Your task to perform on an android device: Open Wikipedia Image 0: 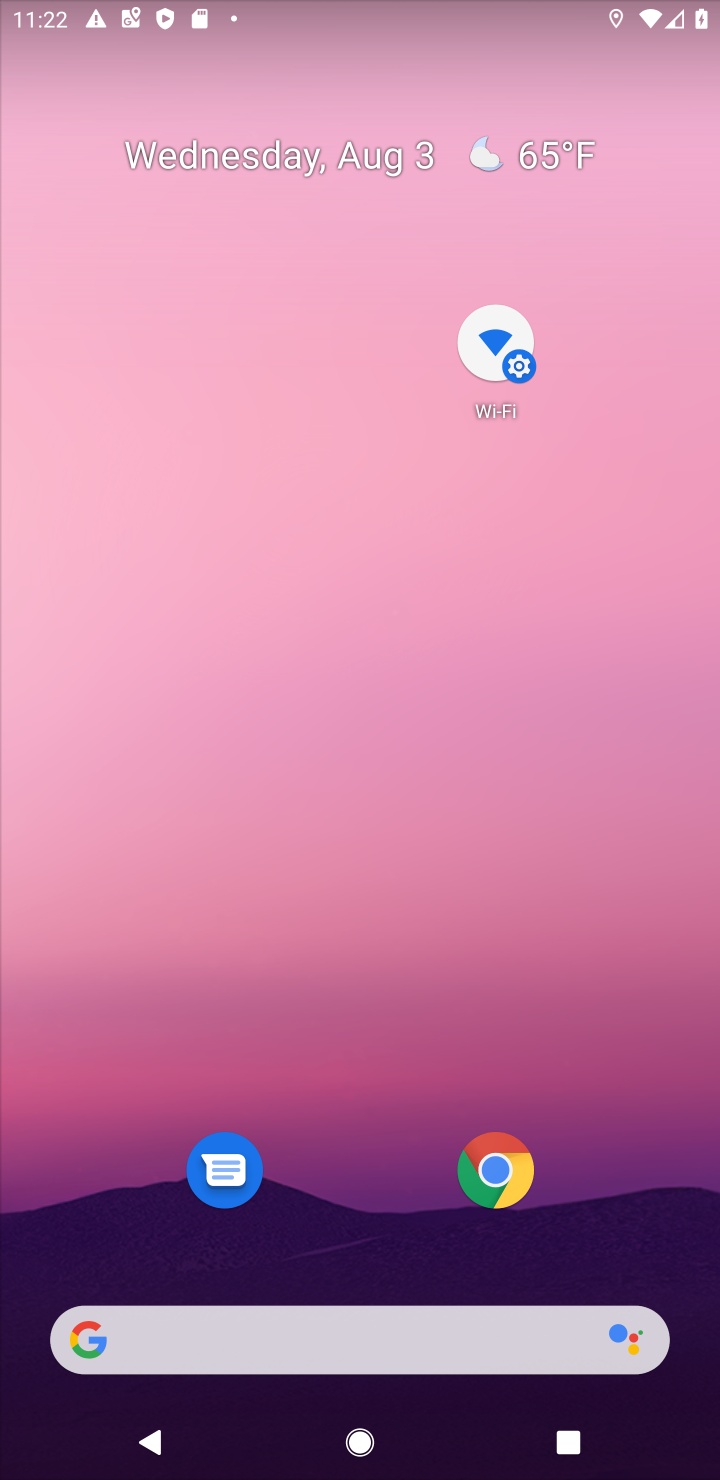
Step 0: drag from (333, 1257) to (333, 282)
Your task to perform on an android device: Open Wikipedia Image 1: 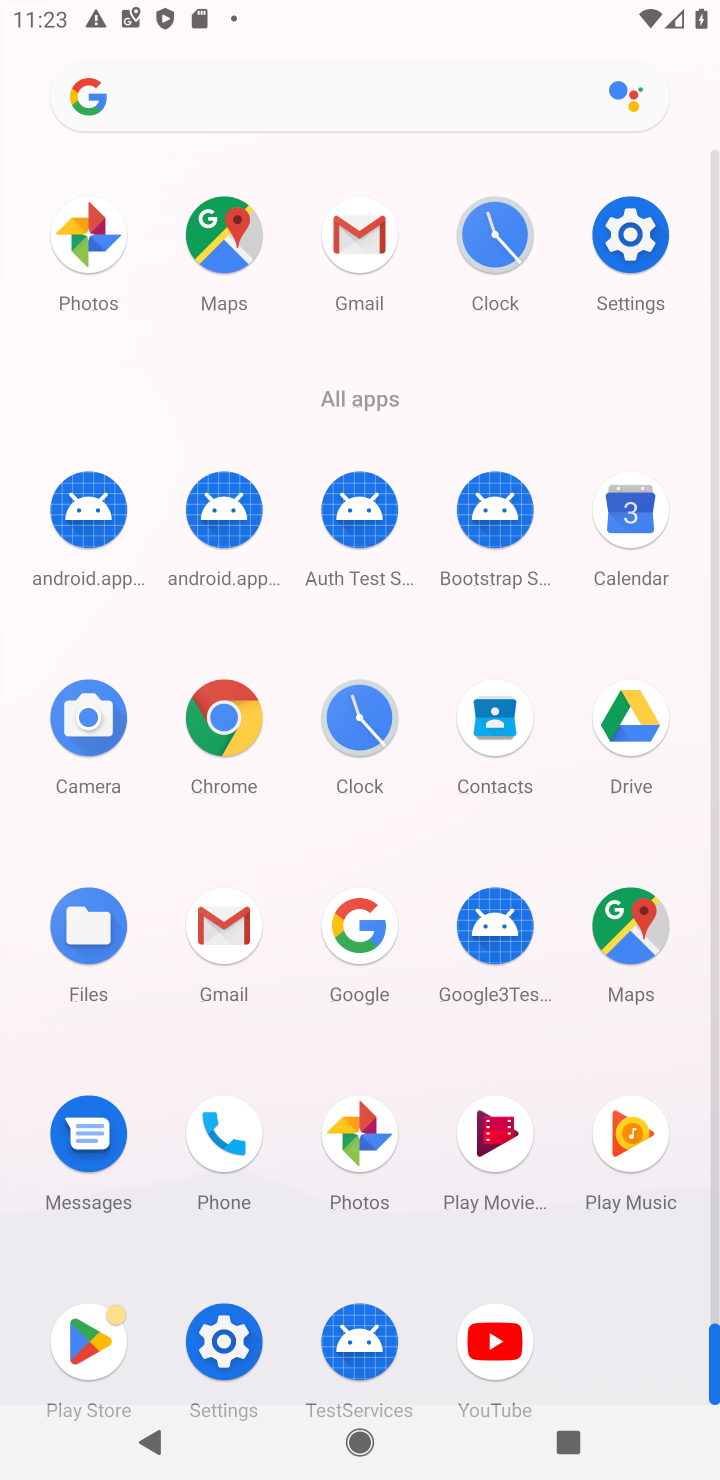
Step 1: click (278, 114)
Your task to perform on an android device: Open Wikipedia Image 2: 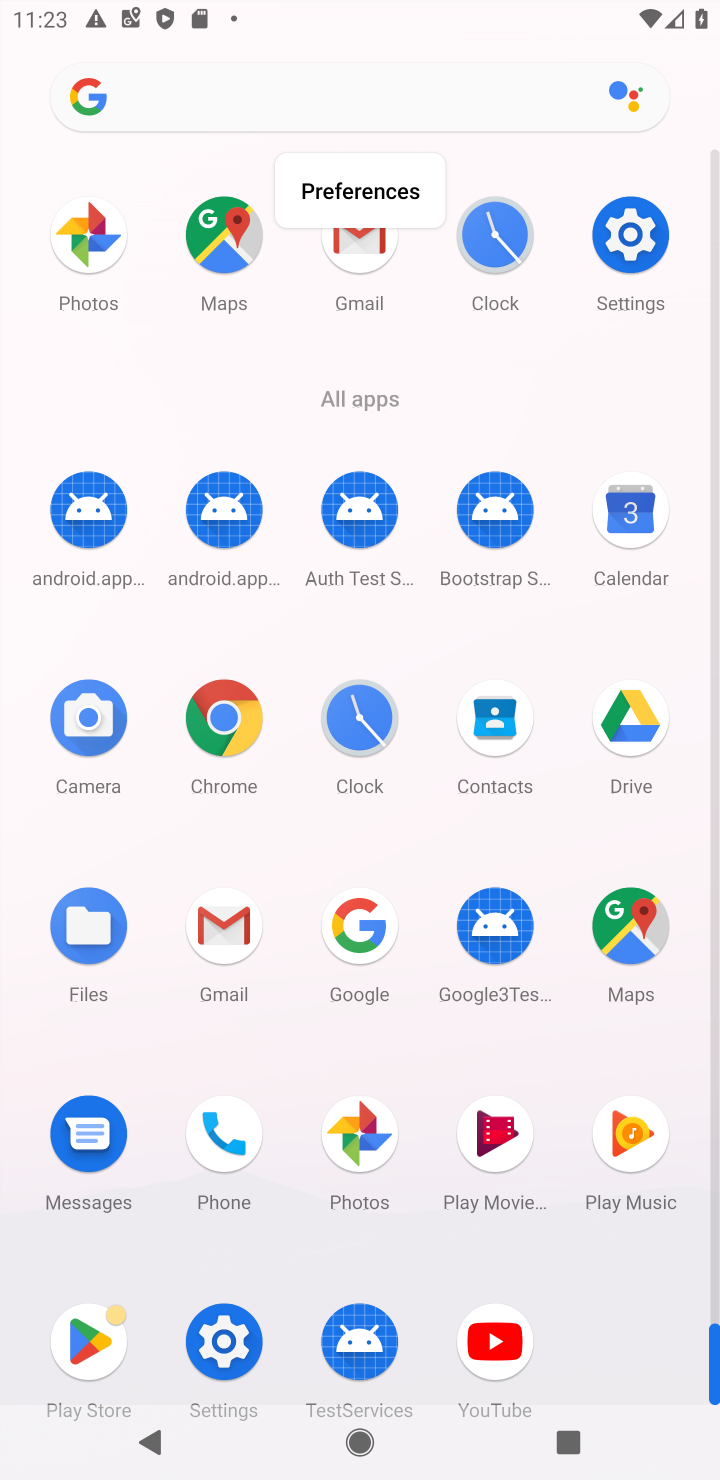
Step 2: click (237, 103)
Your task to perform on an android device: Open Wikipedia Image 3: 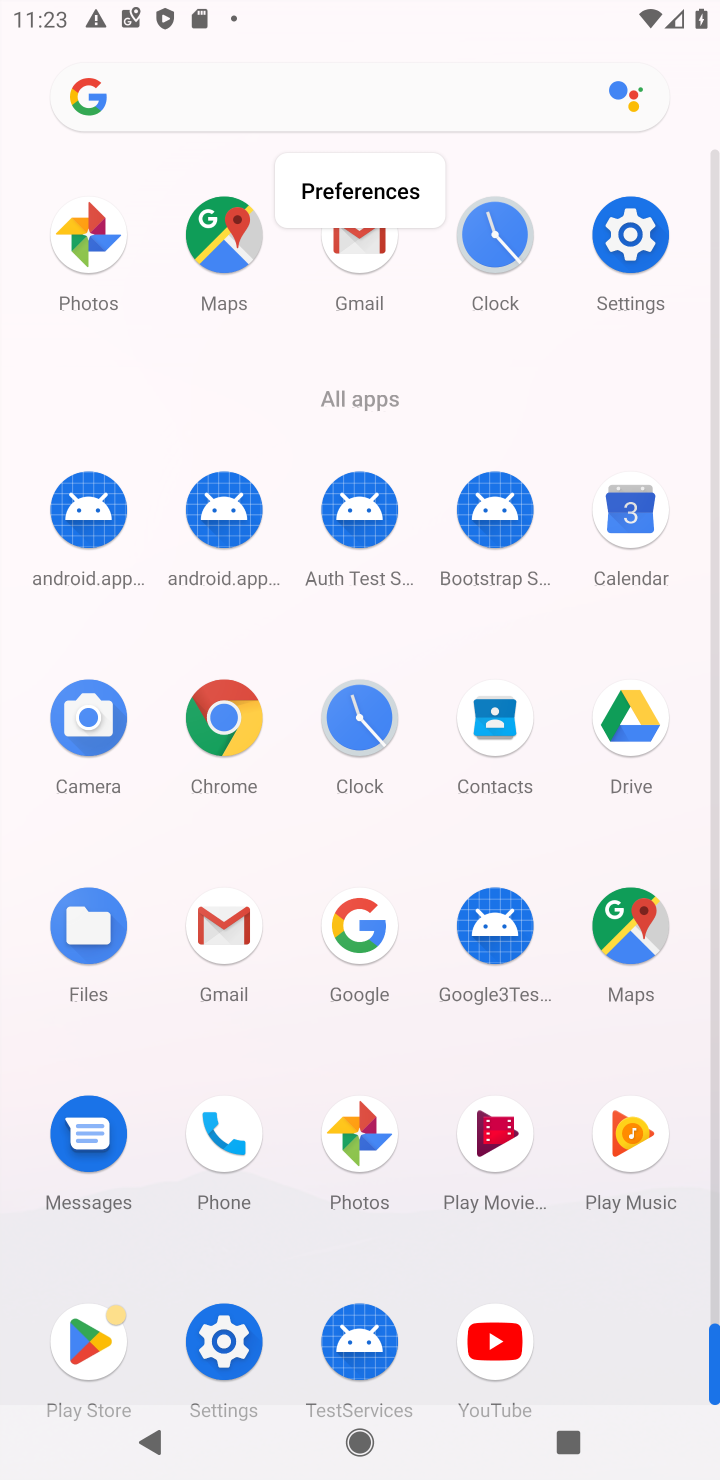
Step 3: click (311, 94)
Your task to perform on an android device: Open Wikipedia Image 4: 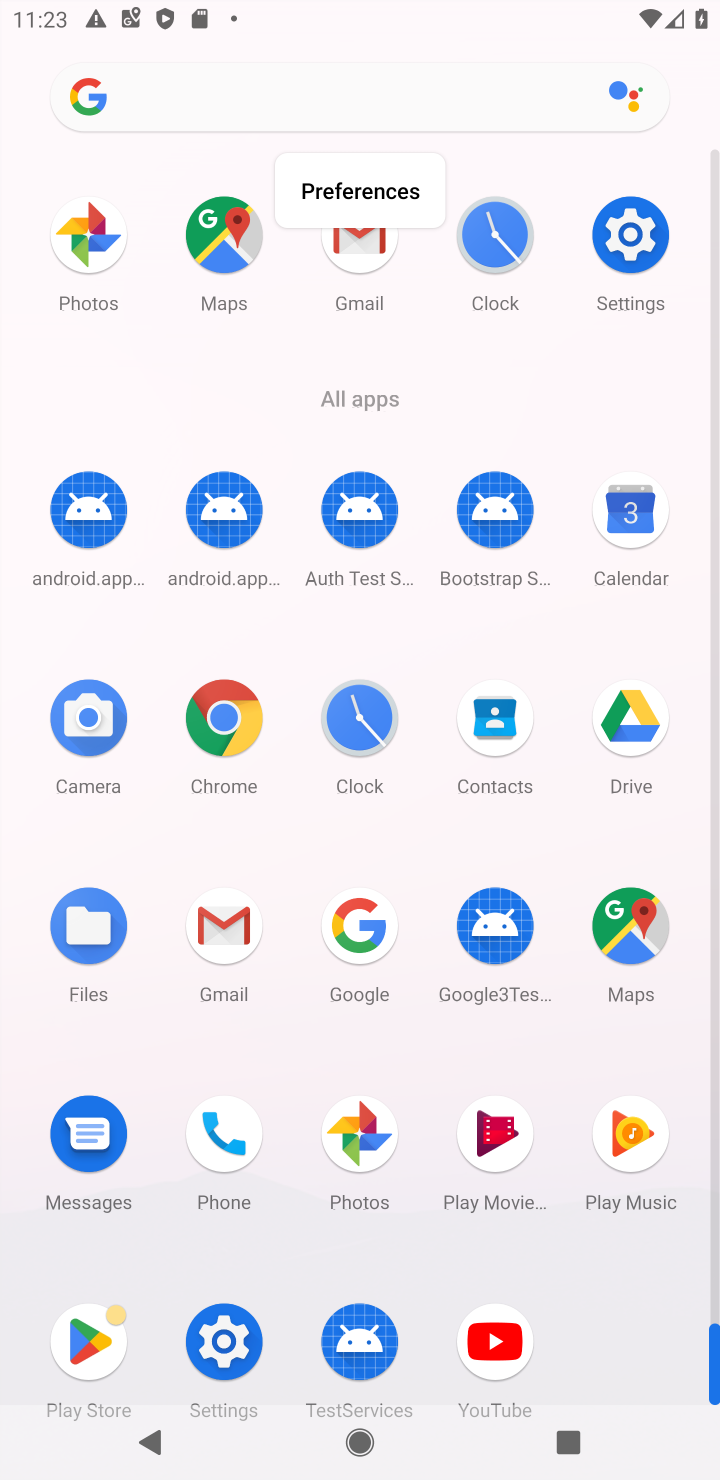
Step 4: click (196, 709)
Your task to perform on an android device: Open Wikipedia Image 5: 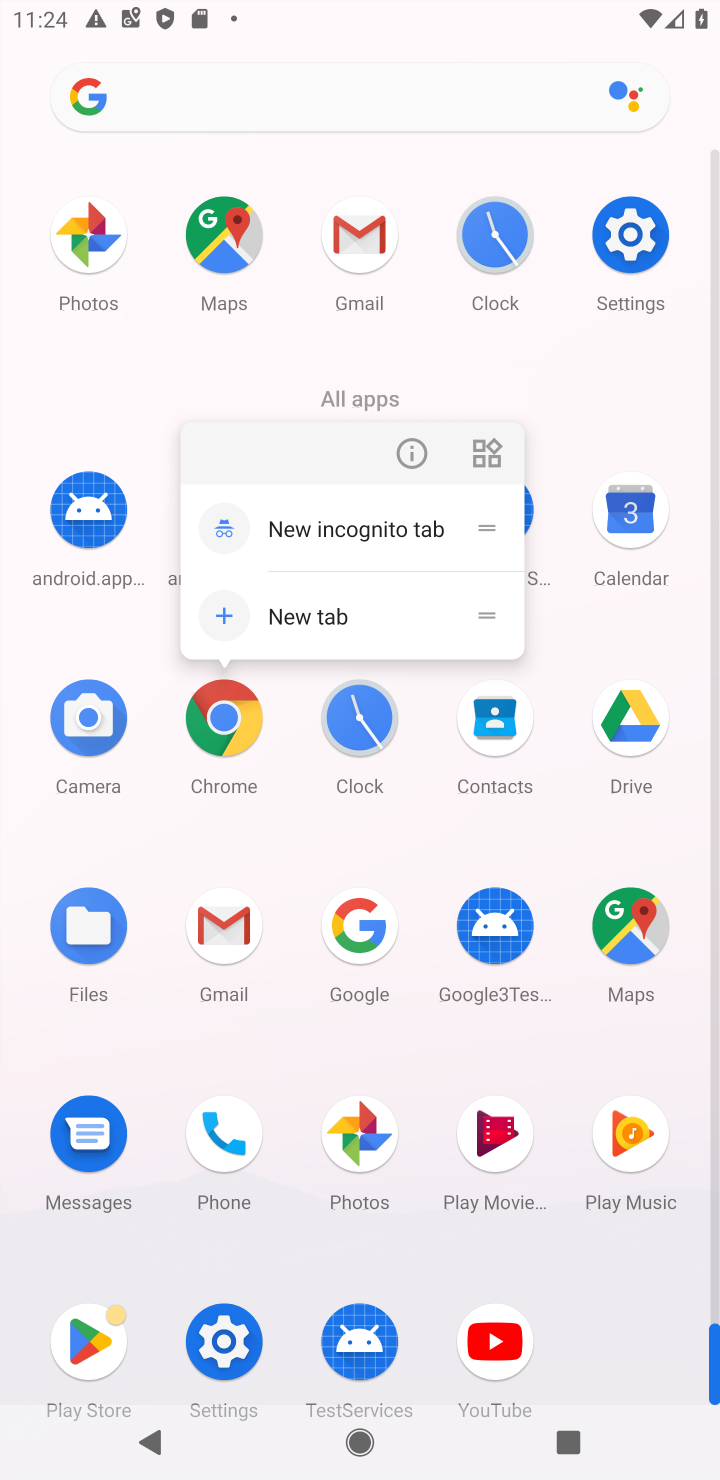
Step 5: click (428, 456)
Your task to perform on an android device: Open Wikipedia Image 6: 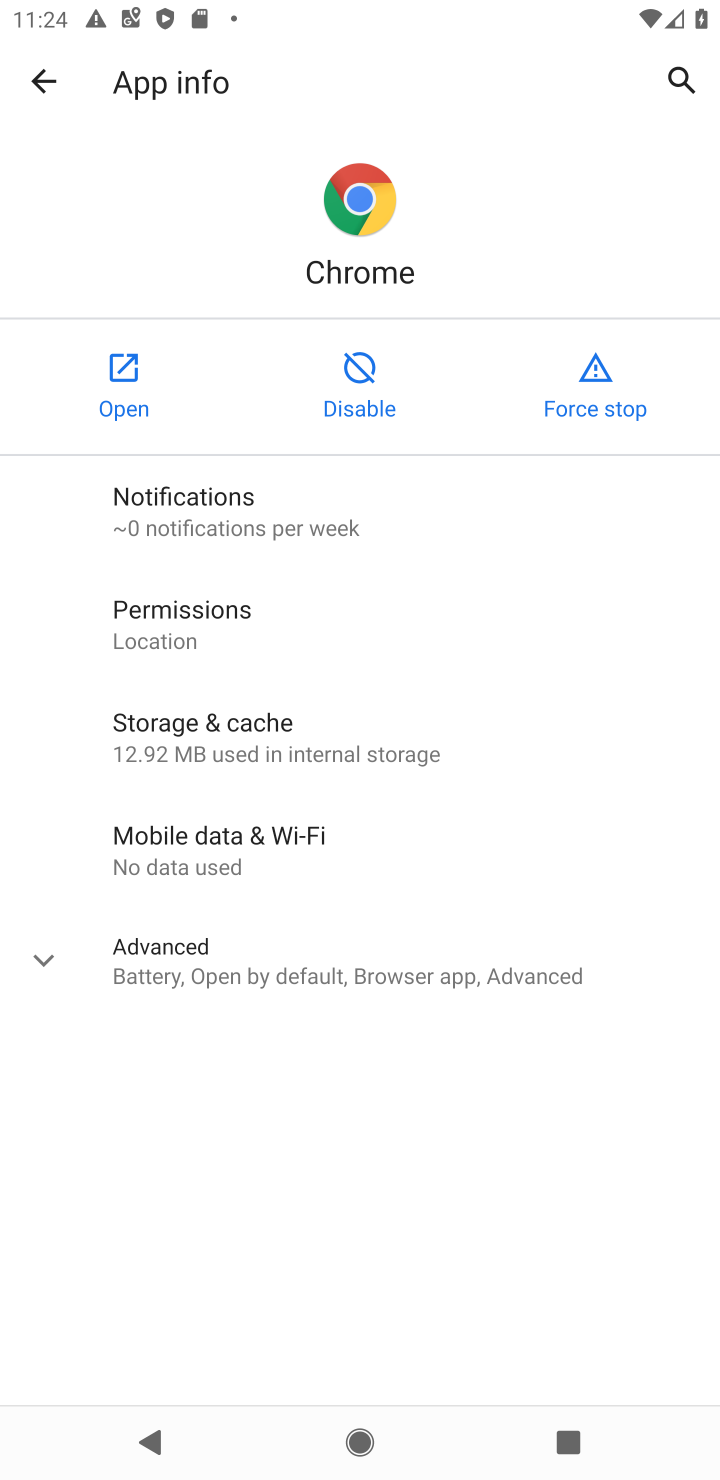
Step 6: click (112, 383)
Your task to perform on an android device: Open Wikipedia Image 7: 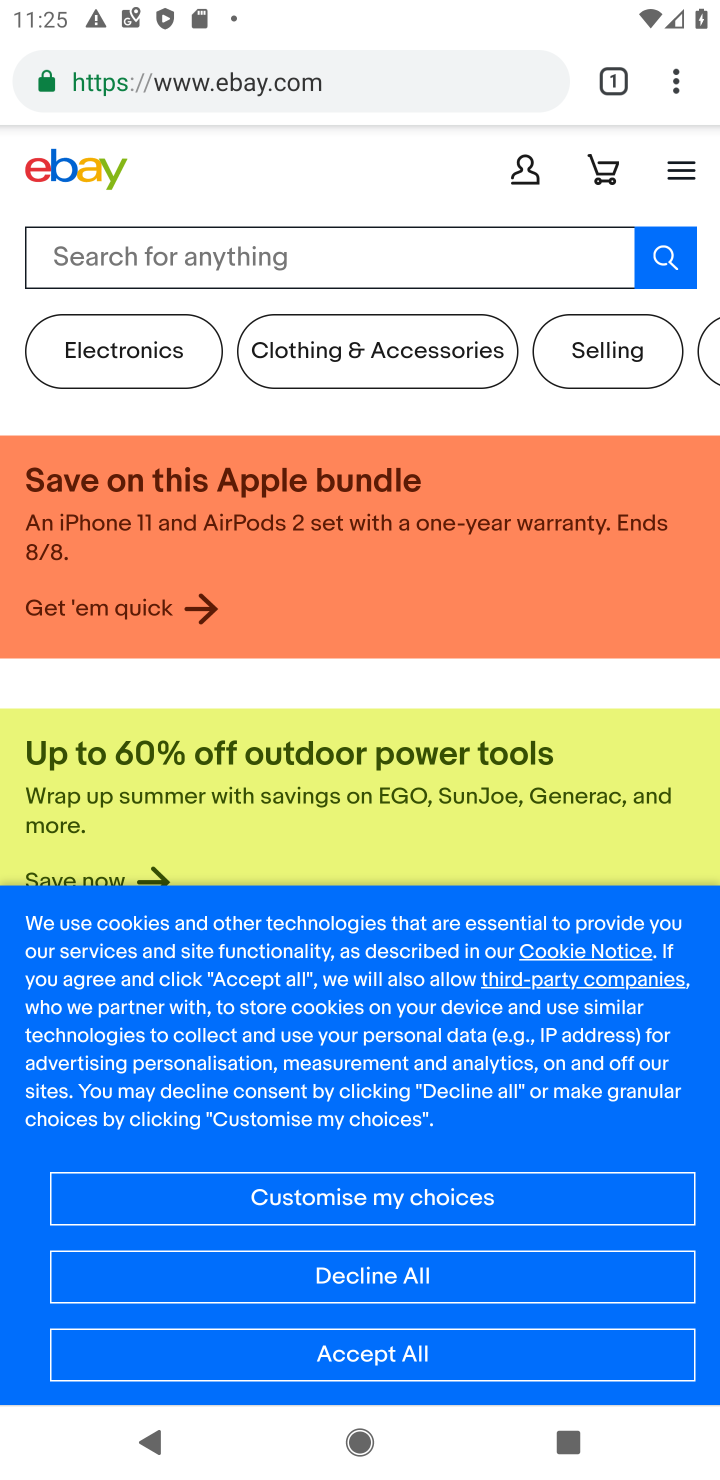
Step 7: click (227, 109)
Your task to perform on an android device: Open Wikipedia Image 8: 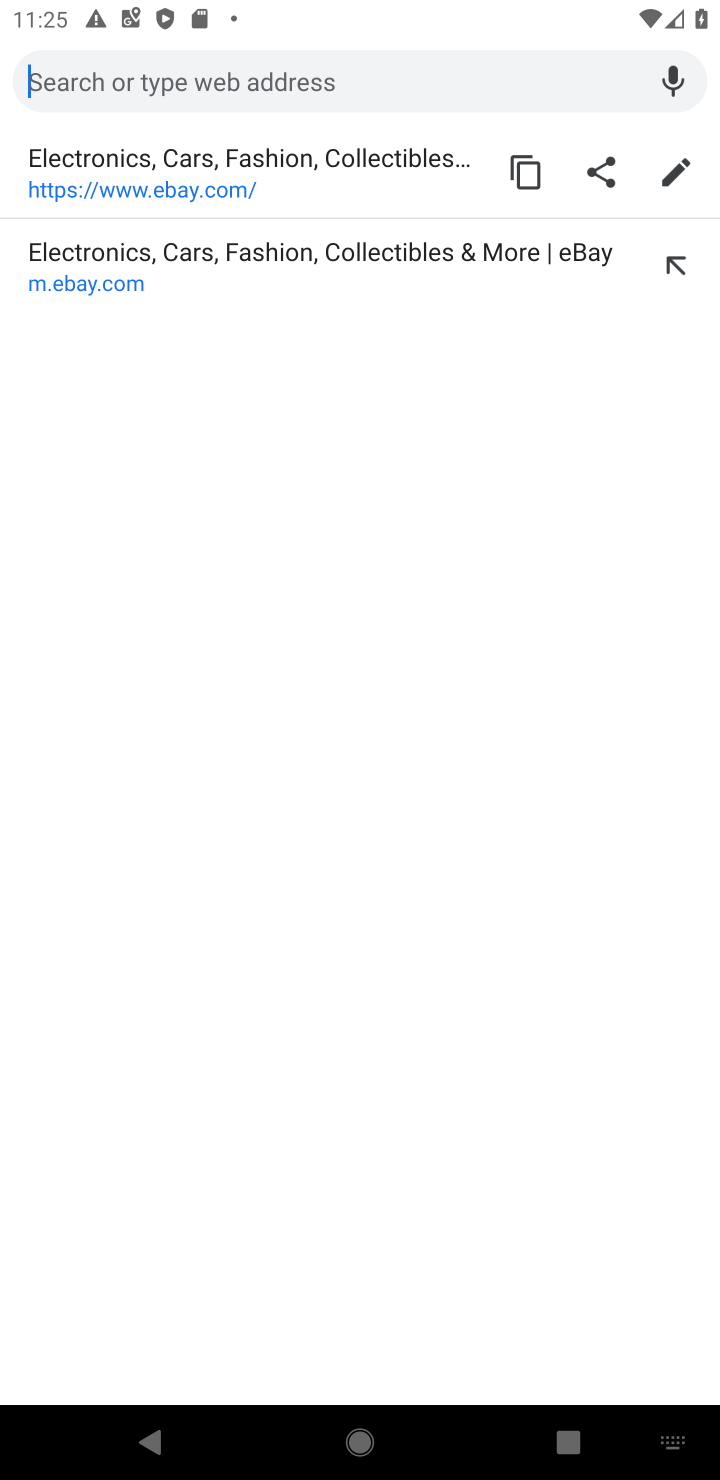
Step 8: type ""
Your task to perform on an android device: Open Wikipedia Image 9: 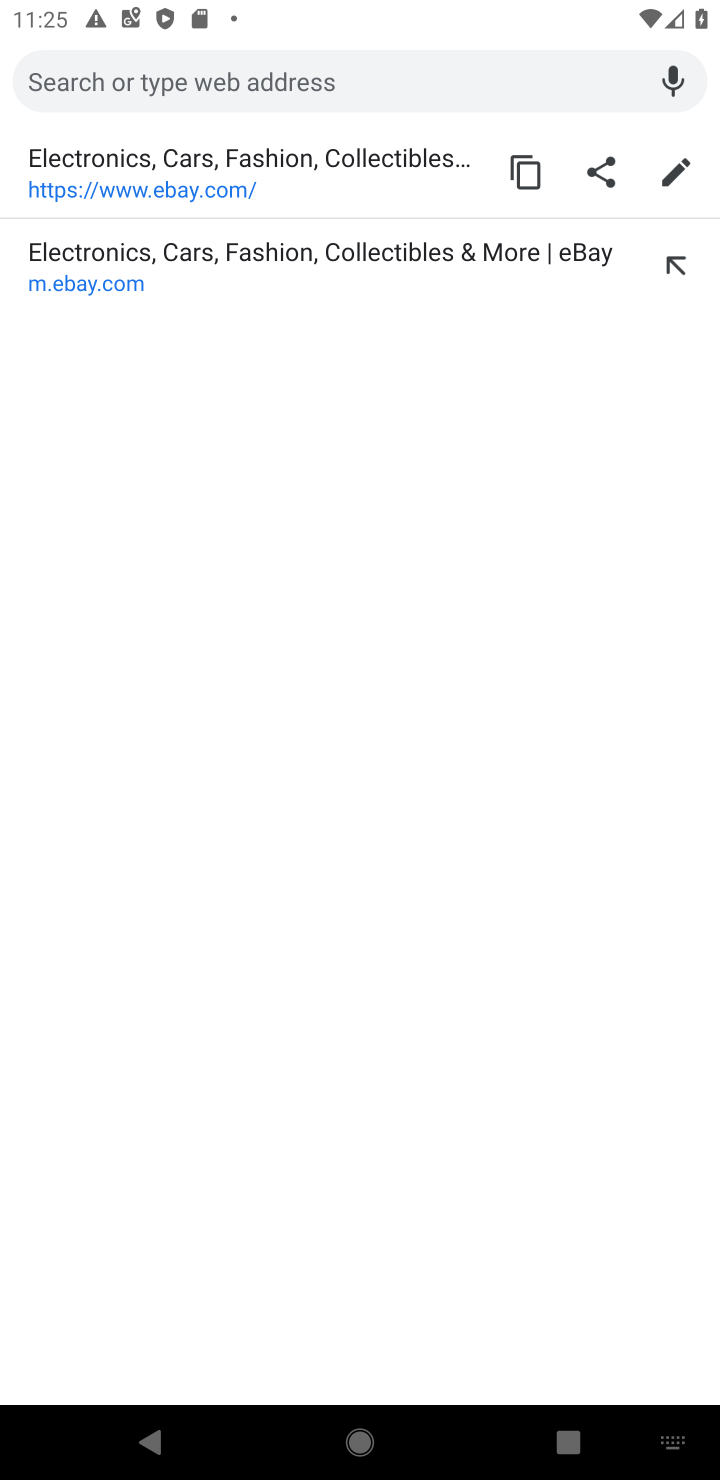
Step 9: type "Wikipedia"
Your task to perform on an android device: Open Wikipedia Image 10: 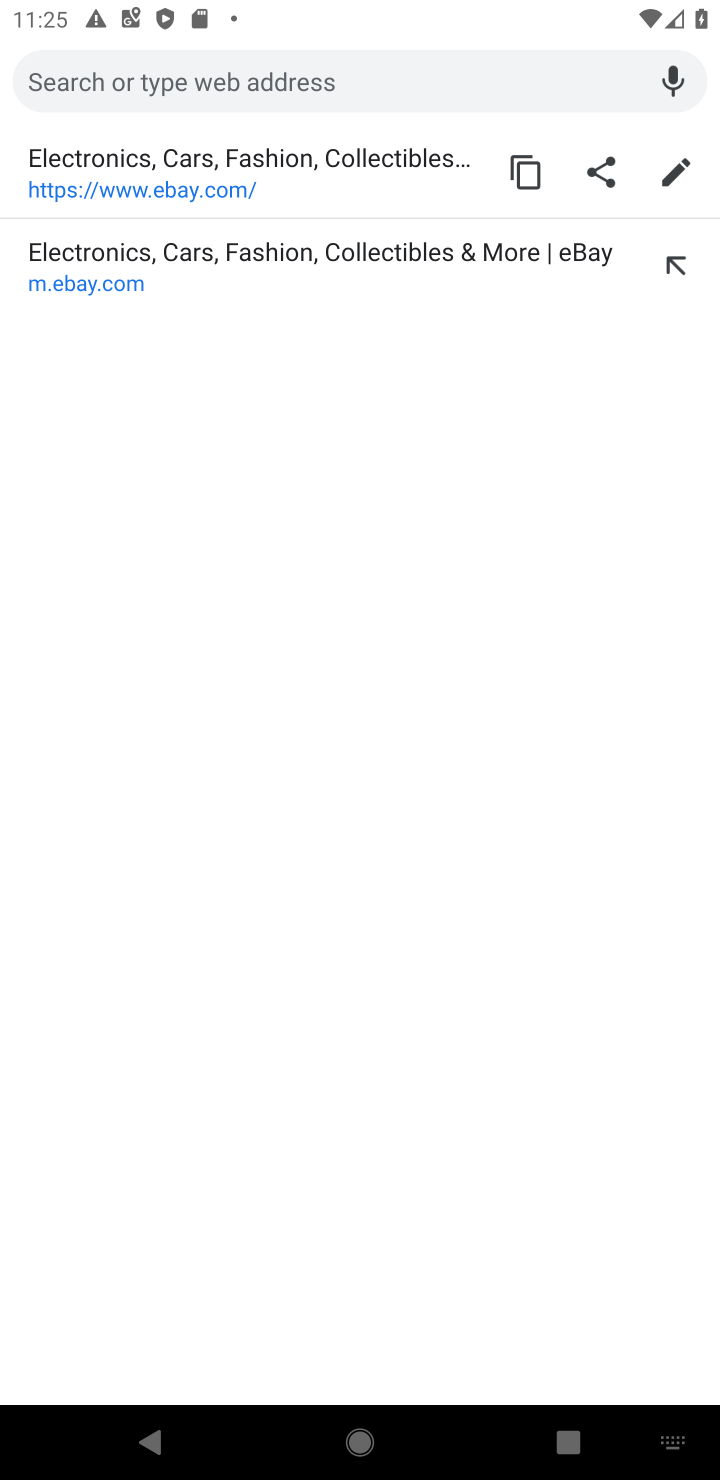
Step 10: click (338, 93)
Your task to perform on an android device: Open Wikipedia Image 11: 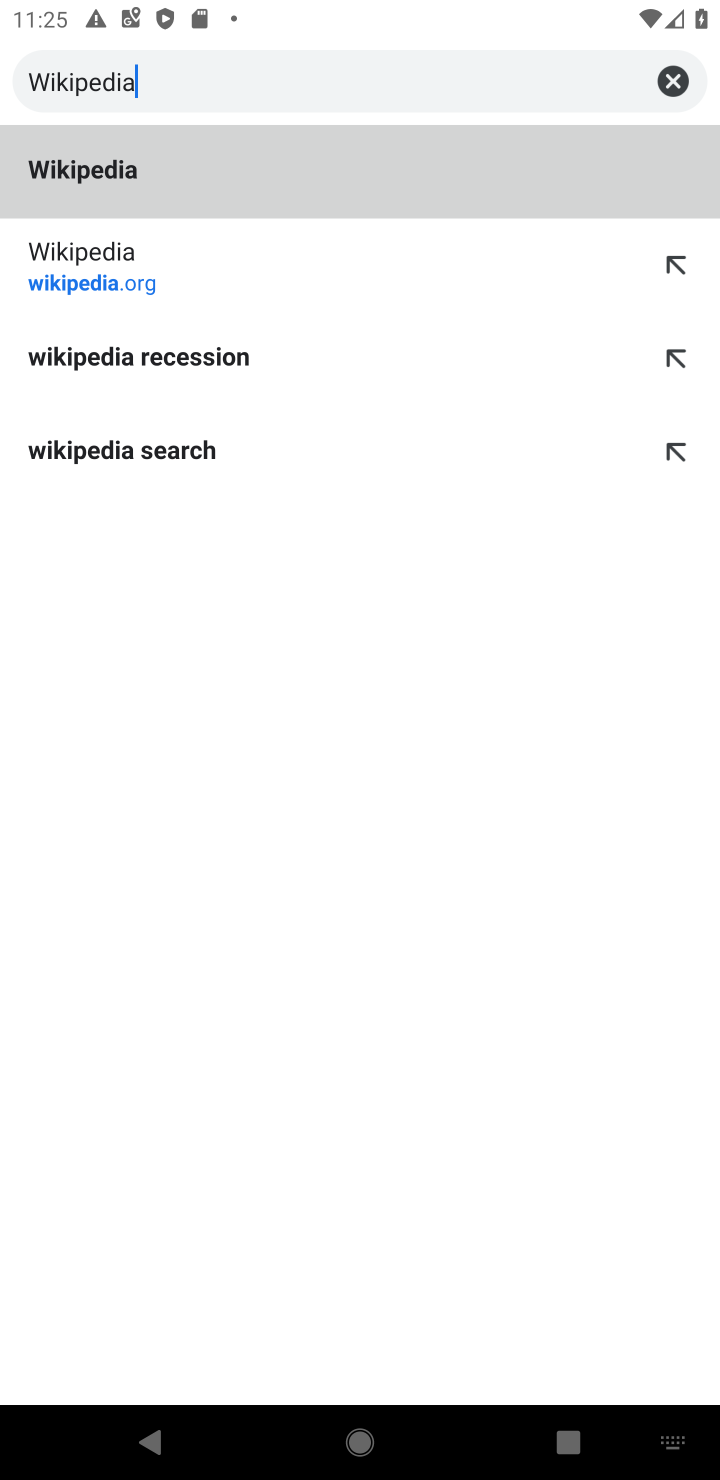
Step 11: type ""
Your task to perform on an android device: Open Wikipedia Image 12: 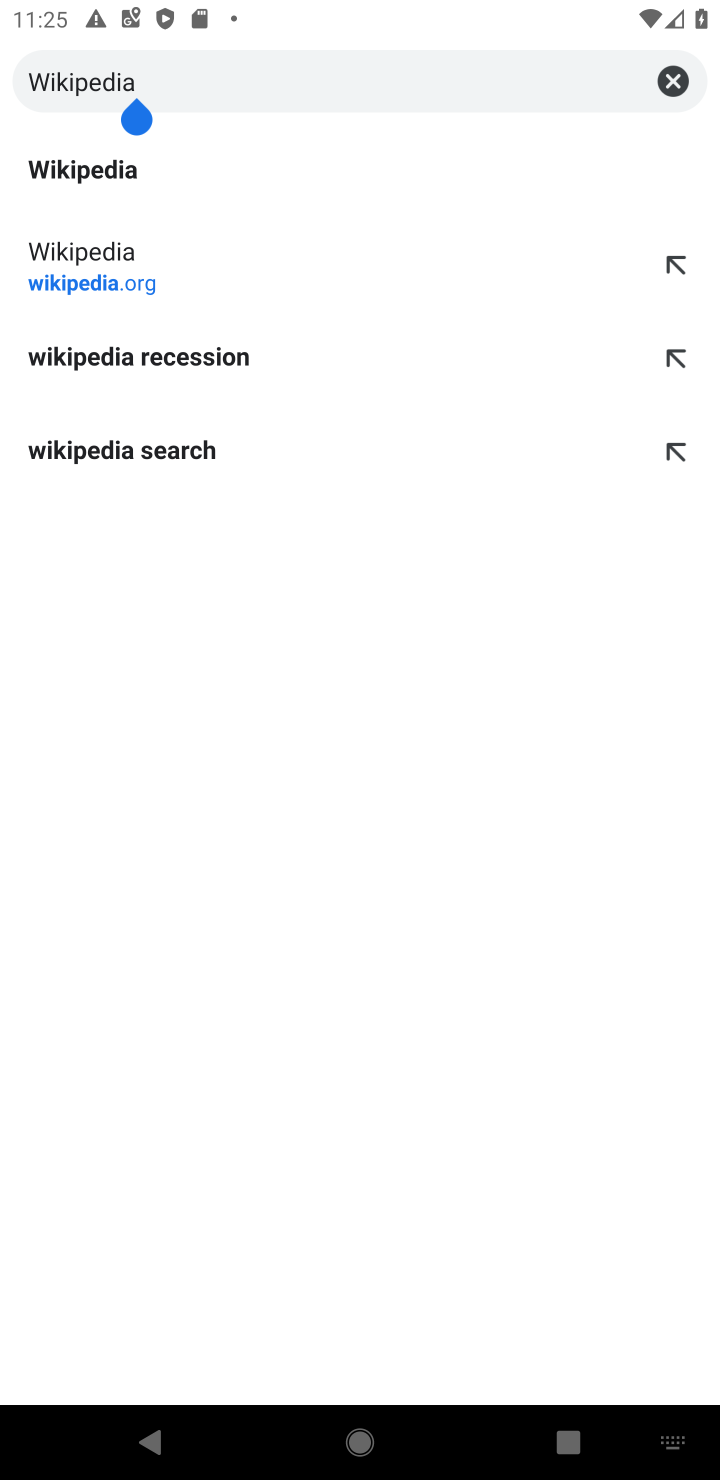
Step 12: click (168, 172)
Your task to perform on an android device: Open Wikipedia Image 13: 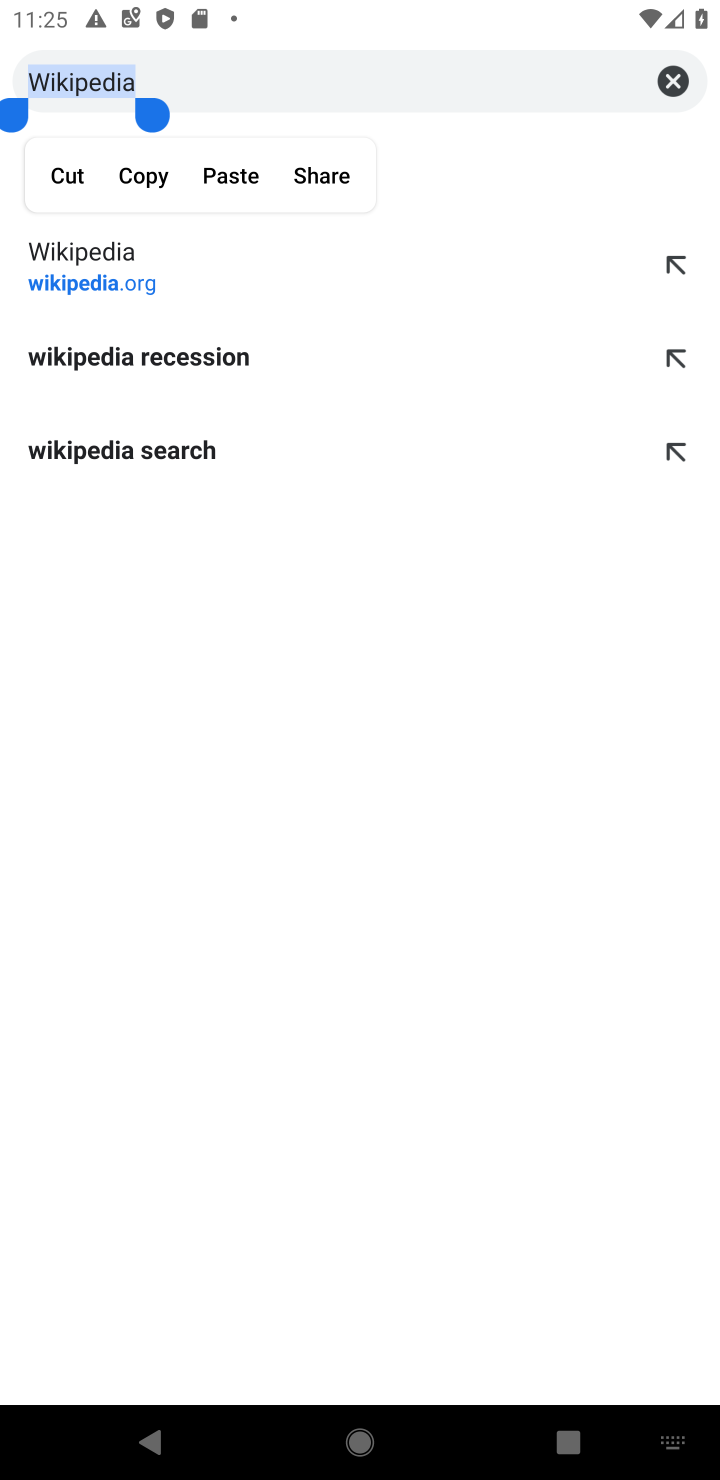
Step 13: click (74, 272)
Your task to perform on an android device: Open Wikipedia Image 14: 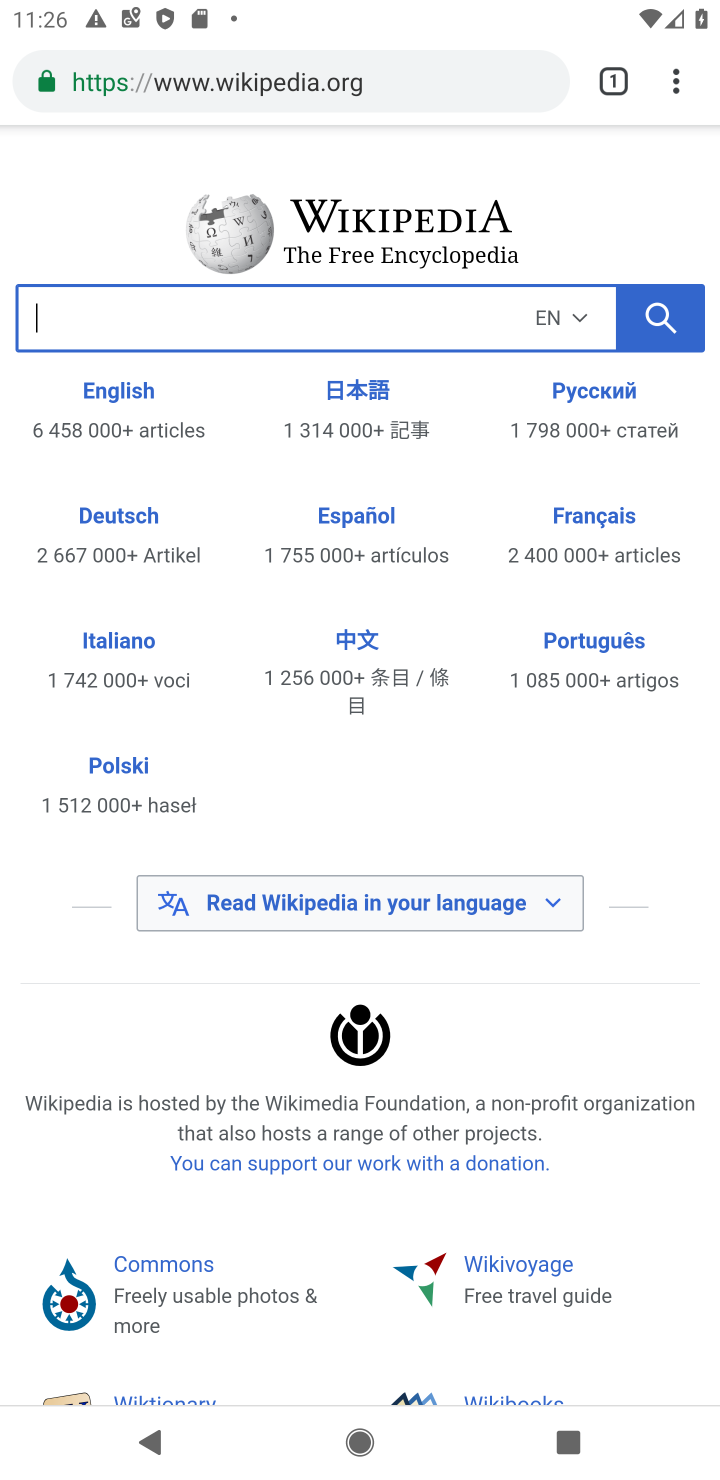
Step 14: task complete